Your task to perform on an android device: choose inbox layout in the gmail app Image 0: 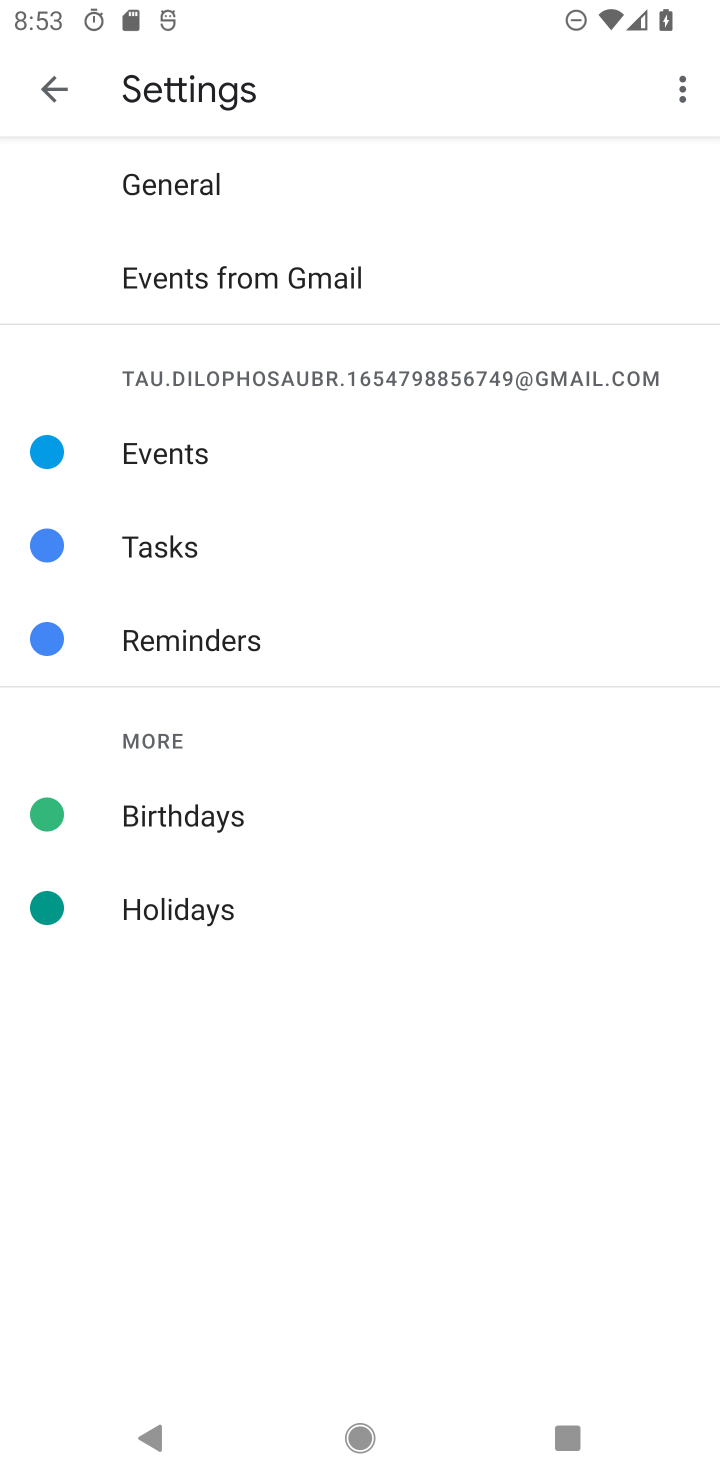
Step 0: press home button
Your task to perform on an android device: choose inbox layout in the gmail app Image 1: 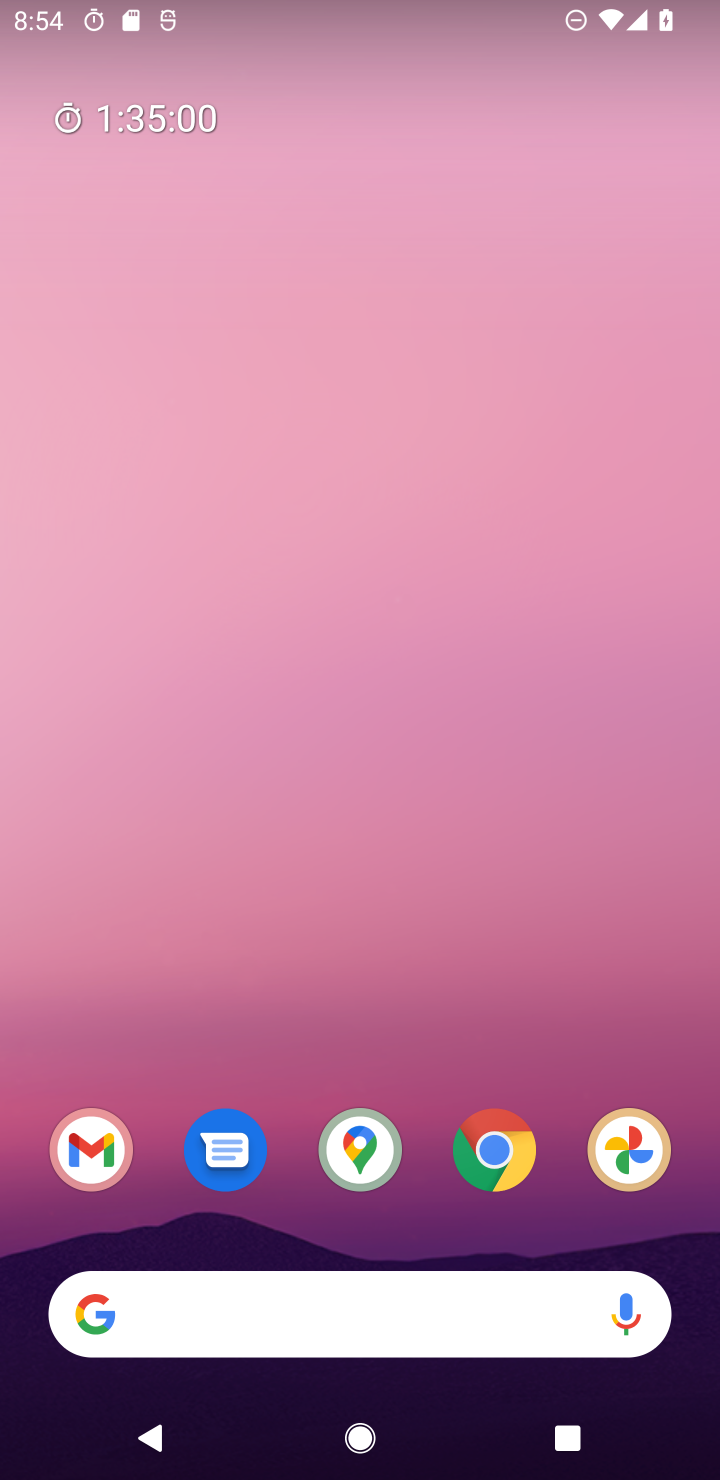
Step 1: drag from (458, 1110) to (505, 66)
Your task to perform on an android device: choose inbox layout in the gmail app Image 2: 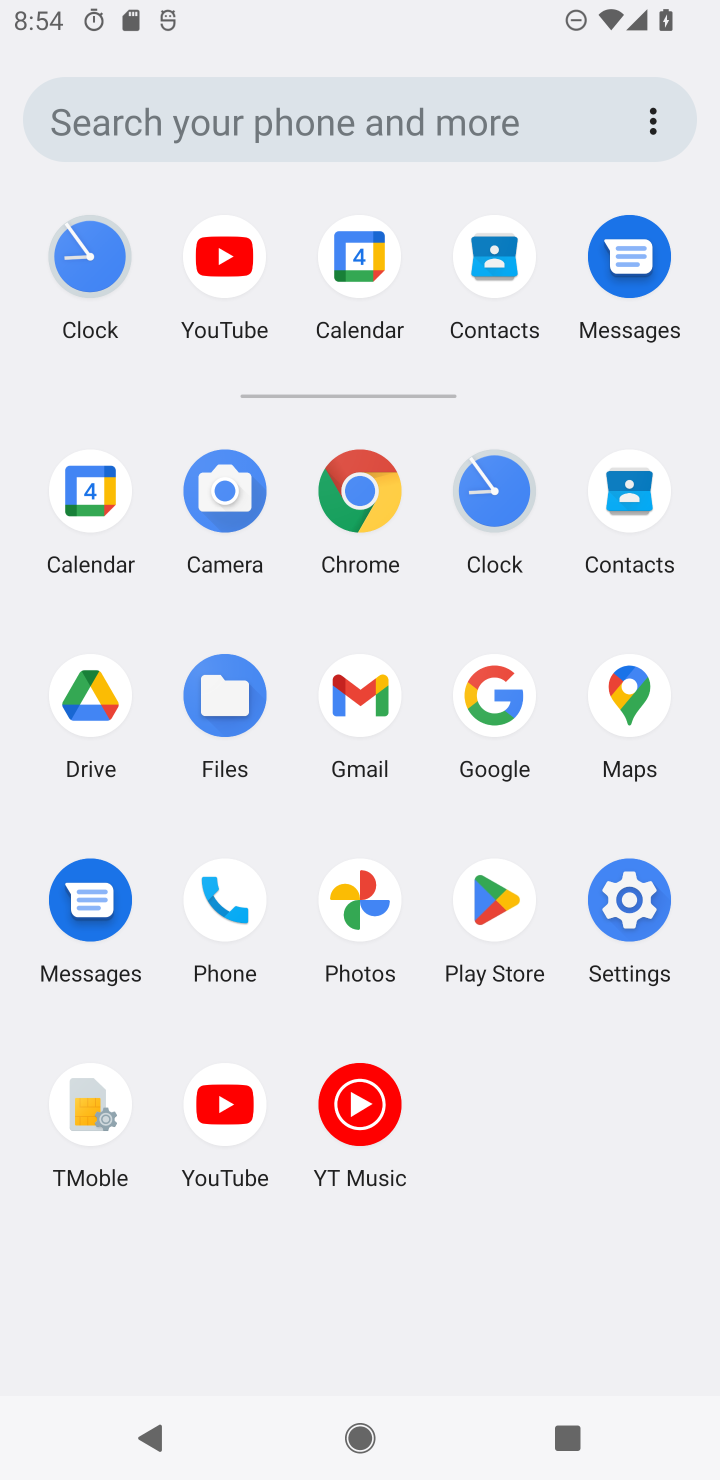
Step 2: click (361, 684)
Your task to perform on an android device: choose inbox layout in the gmail app Image 3: 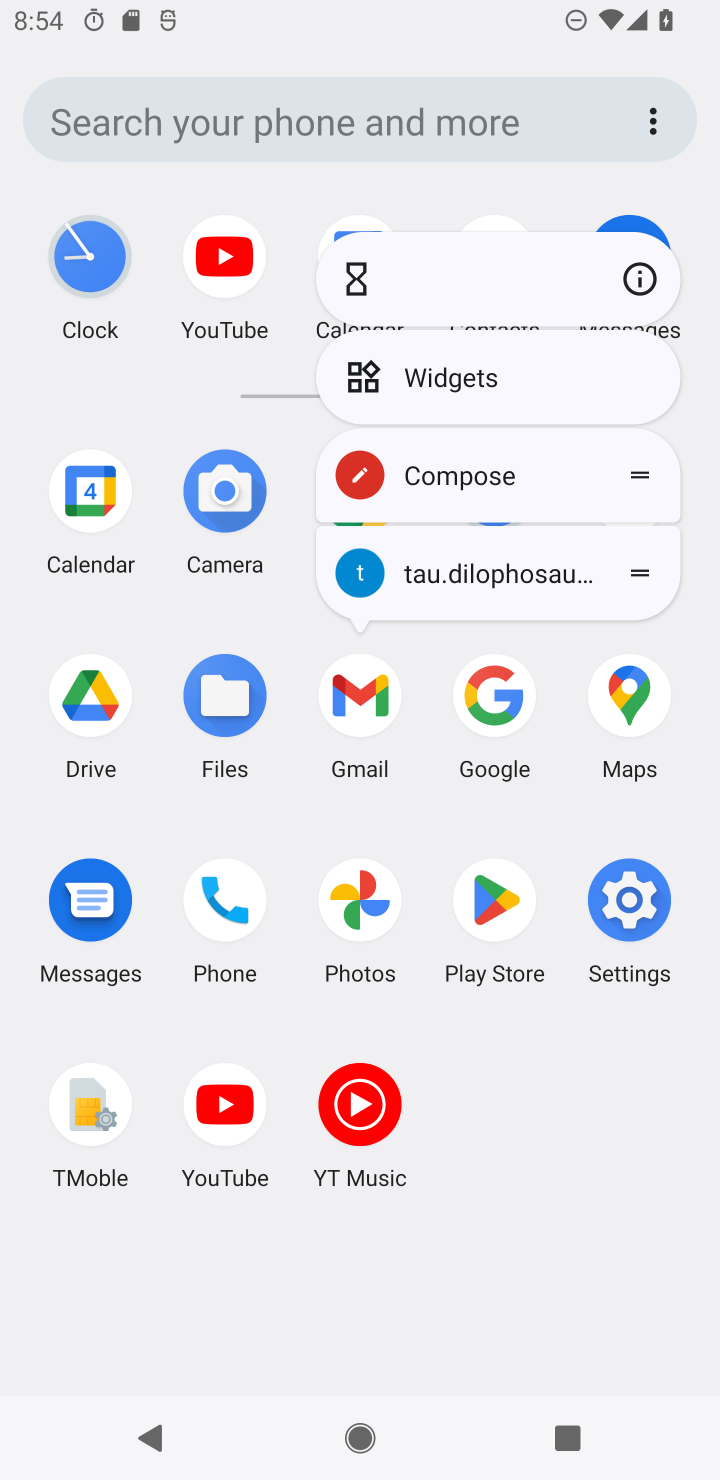
Step 3: click (360, 685)
Your task to perform on an android device: choose inbox layout in the gmail app Image 4: 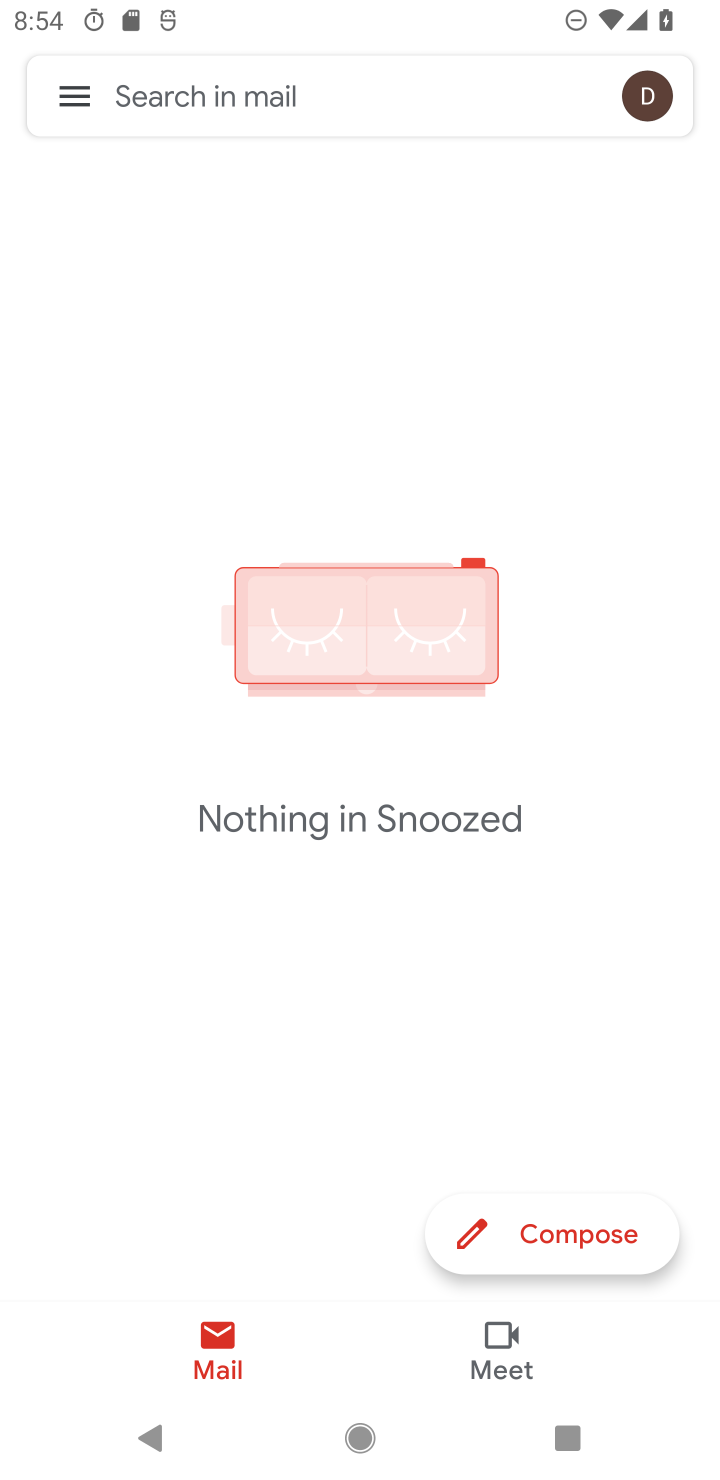
Step 4: click (91, 86)
Your task to perform on an android device: choose inbox layout in the gmail app Image 5: 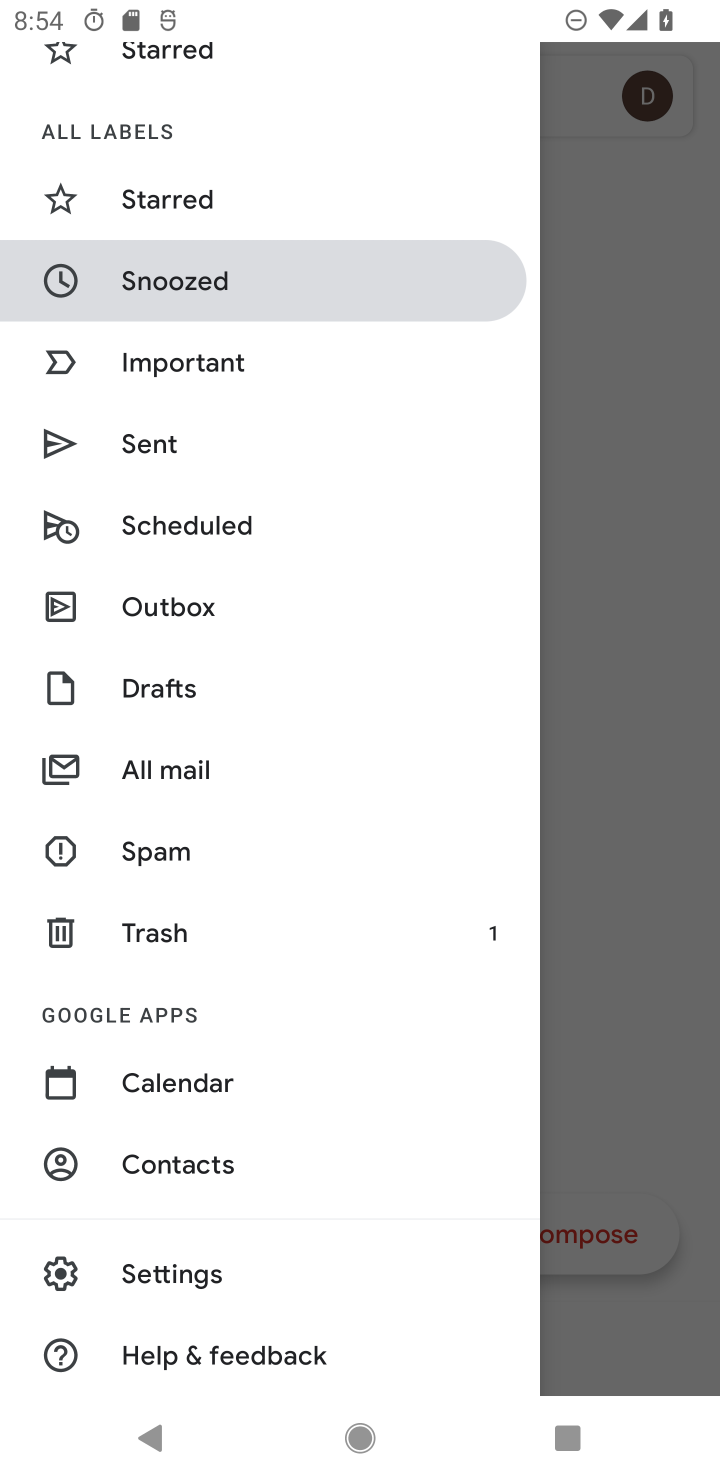
Step 5: click (192, 1258)
Your task to perform on an android device: choose inbox layout in the gmail app Image 6: 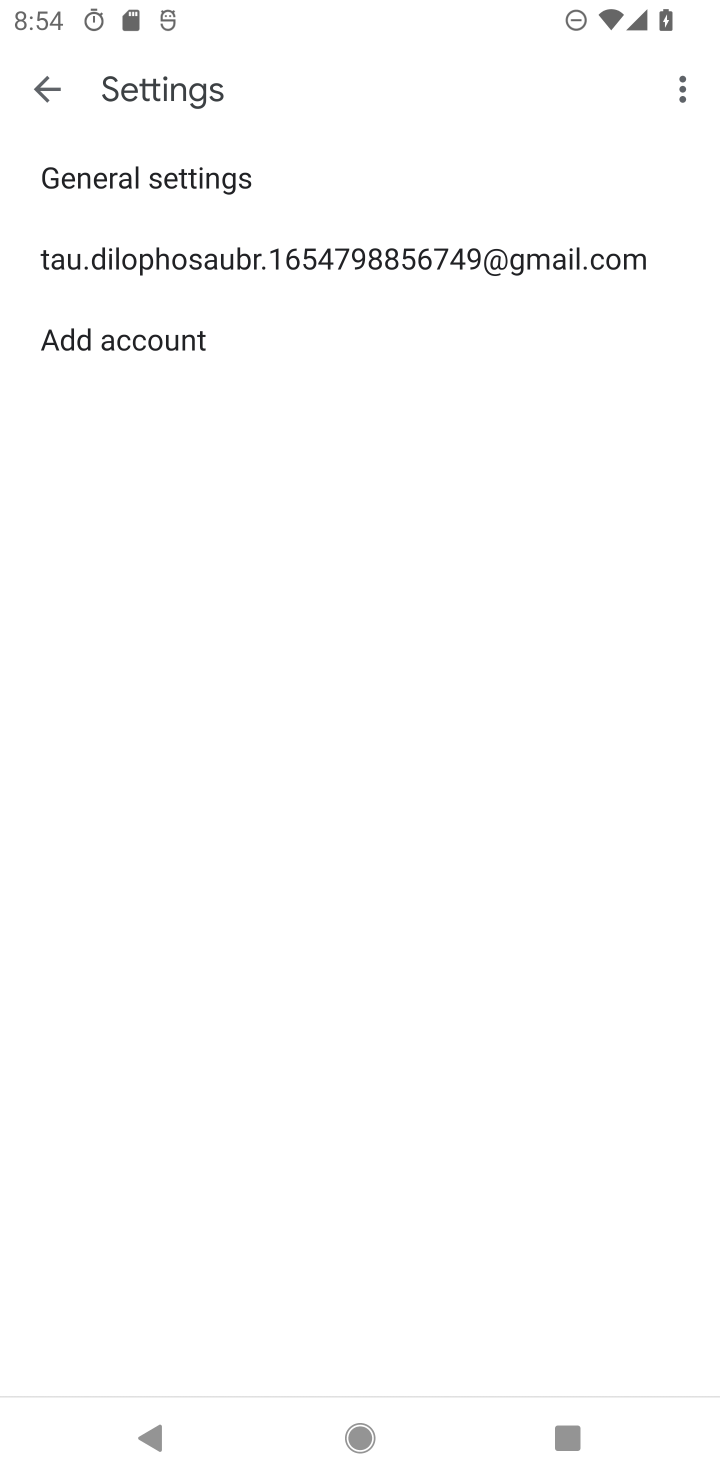
Step 6: click (280, 249)
Your task to perform on an android device: choose inbox layout in the gmail app Image 7: 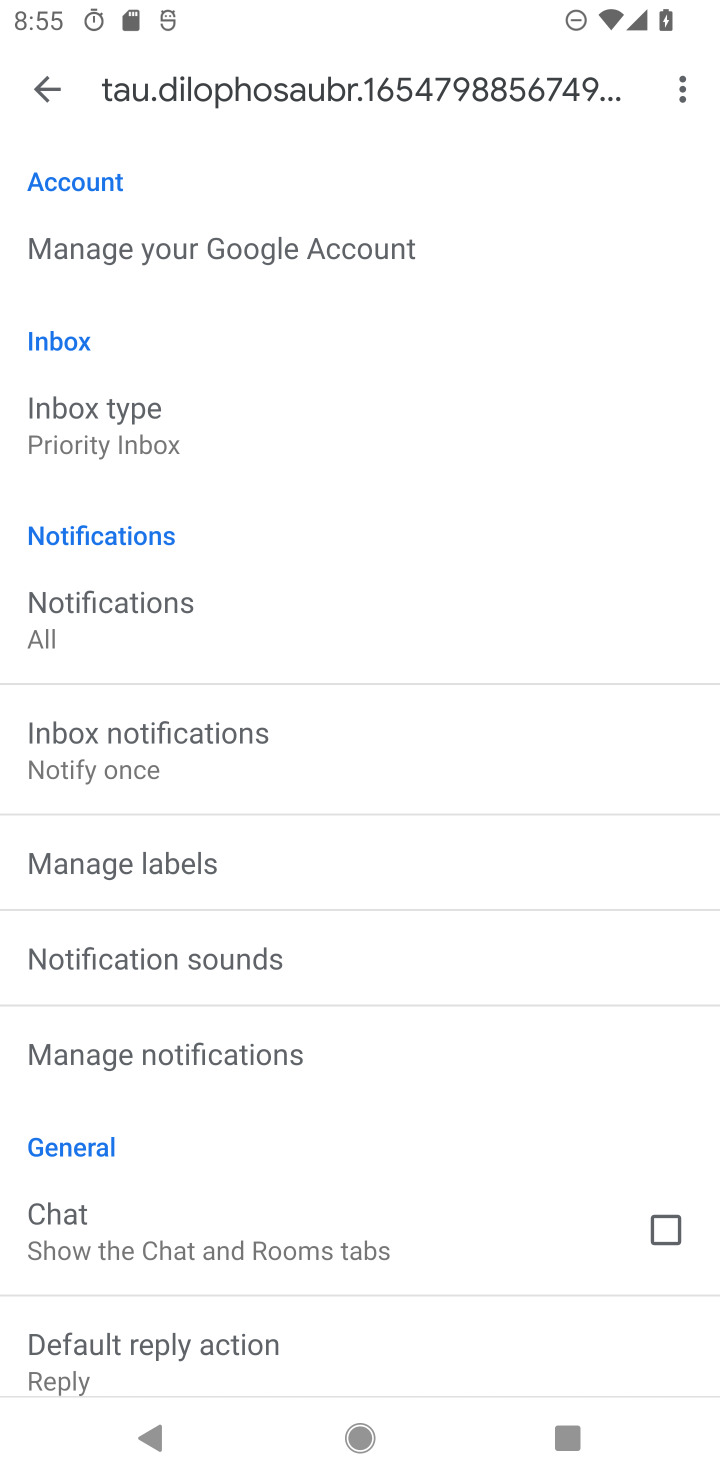
Step 7: click (157, 424)
Your task to perform on an android device: choose inbox layout in the gmail app Image 8: 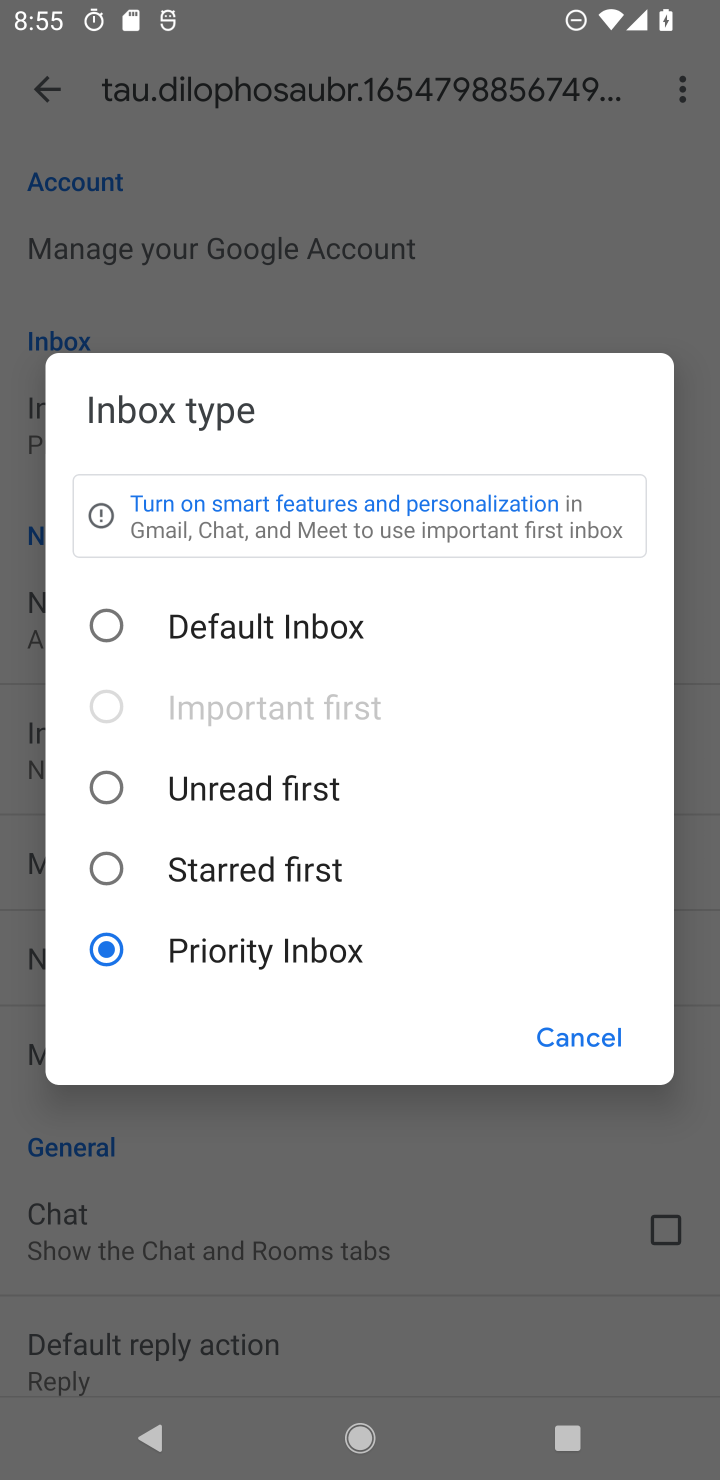
Step 8: click (100, 615)
Your task to perform on an android device: choose inbox layout in the gmail app Image 9: 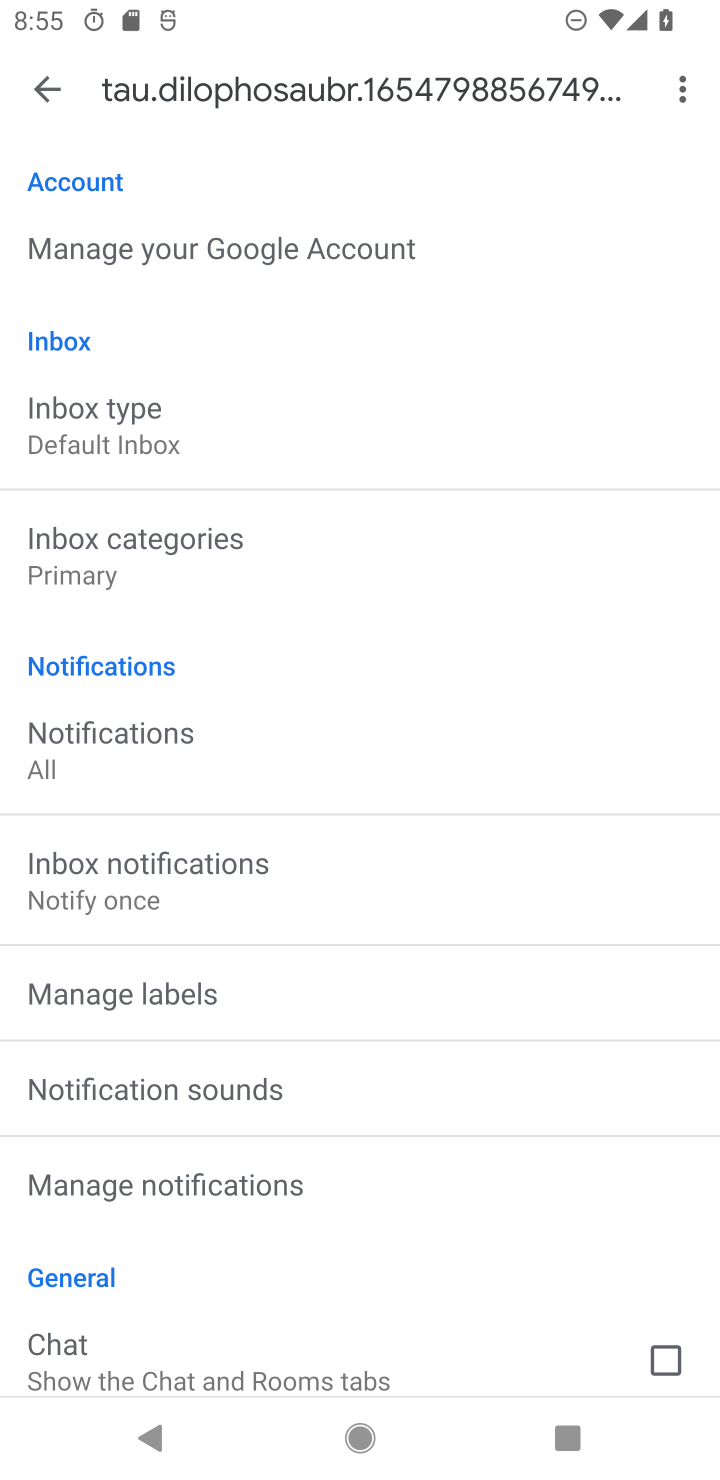
Step 9: task complete